Your task to perform on an android device: turn off javascript in the chrome app Image 0: 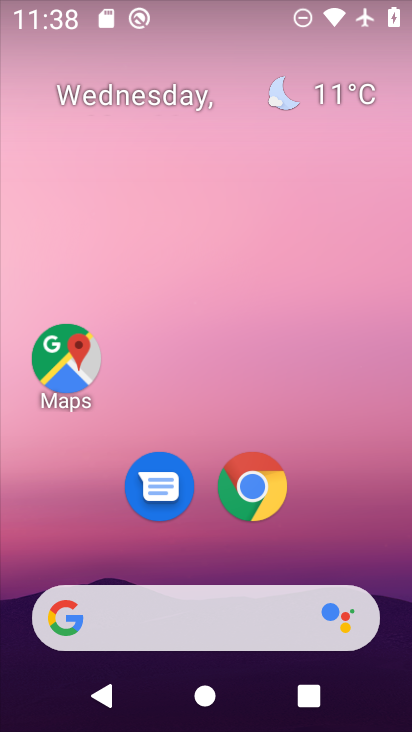
Step 0: drag from (299, 271) to (250, 46)
Your task to perform on an android device: turn off javascript in the chrome app Image 1: 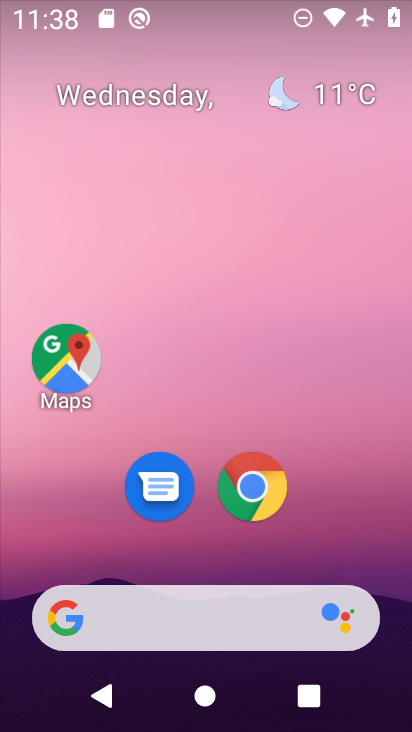
Step 1: click (251, 481)
Your task to perform on an android device: turn off javascript in the chrome app Image 2: 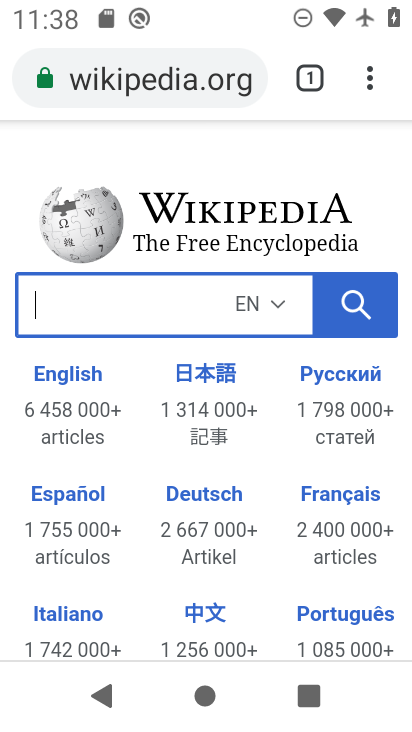
Step 2: drag from (366, 78) to (157, 547)
Your task to perform on an android device: turn off javascript in the chrome app Image 3: 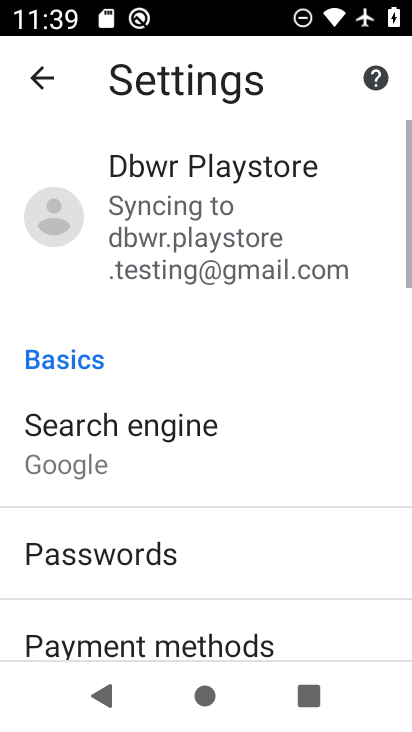
Step 3: drag from (290, 523) to (285, 157)
Your task to perform on an android device: turn off javascript in the chrome app Image 4: 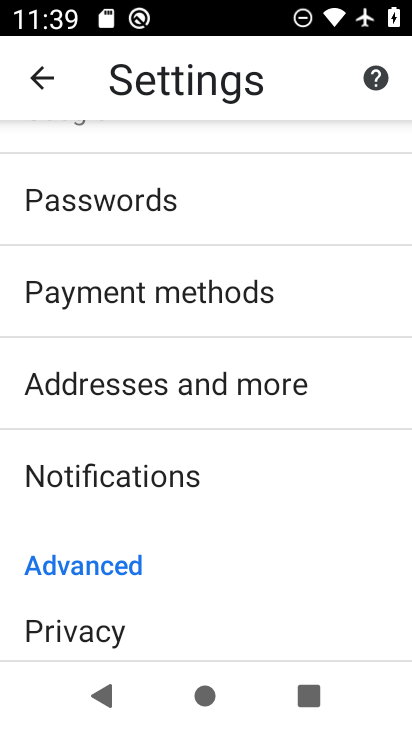
Step 4: drag from (266, 564) to (255, 193)
Your task to perform on an android device: turn off javascript in the chrome app Image 5: 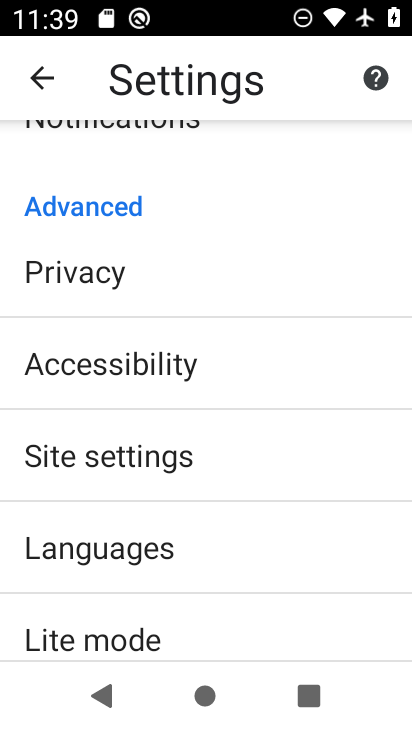
Step 5: click (166, 459)
Your task to perform on an android device: turn off javascript in the chrome app Image 6: 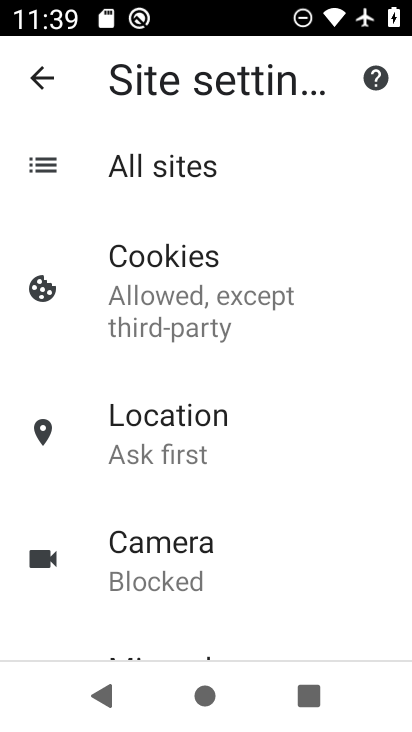
Step 6: drag from (237, 527) to (289, 245)
Your task to perform on an android device: turn off javascript in the chrome app Image 7: 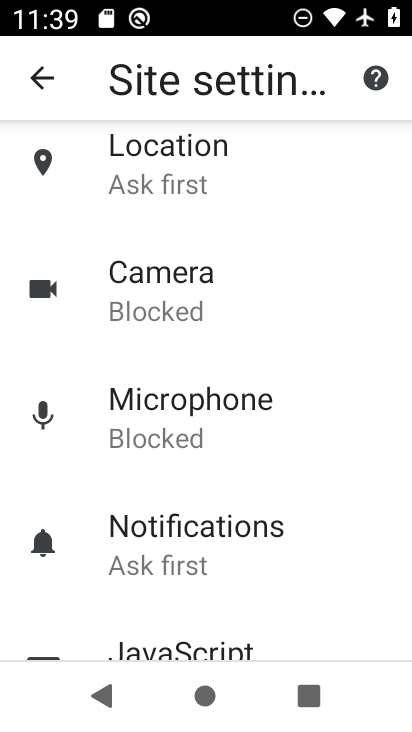
Step 7: drag from (284, 551) to (303, 259)
Your task to perform on an android device: turn off javascript in the chrome app Image 8: 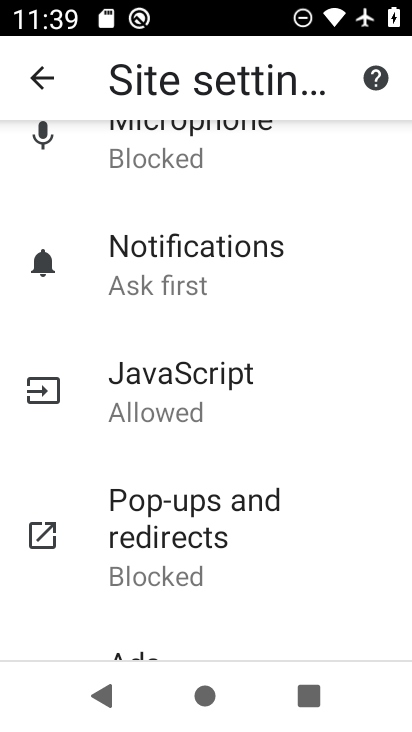
Step 8: click (211, 385)
Your task to perform on an android device: turn off javascript in the chrome app Image 9: 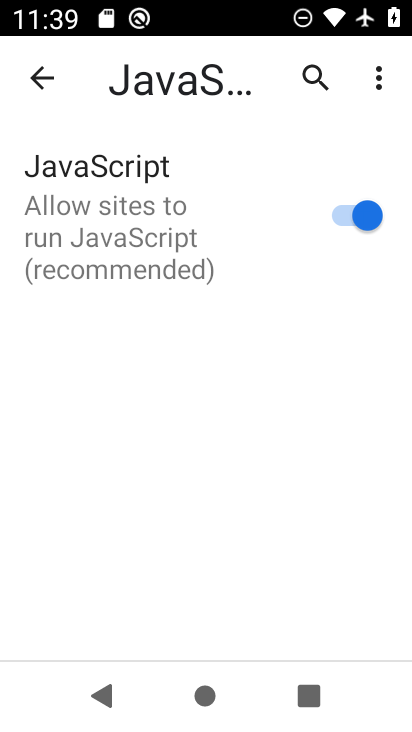
Step 9: click (343, 213)
Your task to perform on an android device: turn off javascript in the chrome app Image 10: 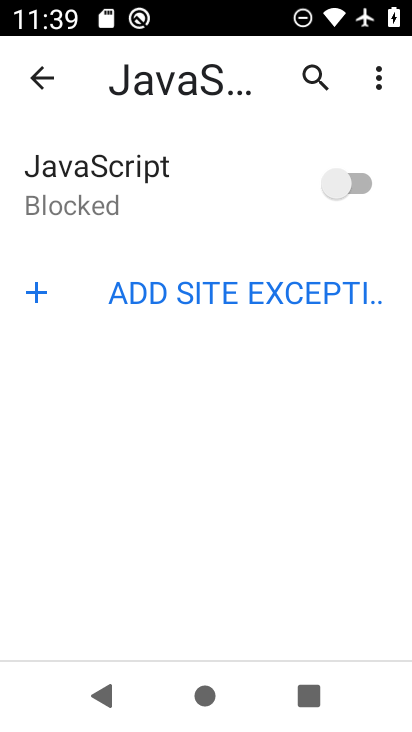
Step 10: task complete